Your task to perform on an android device: turn on translation in the chrome app Image 0: 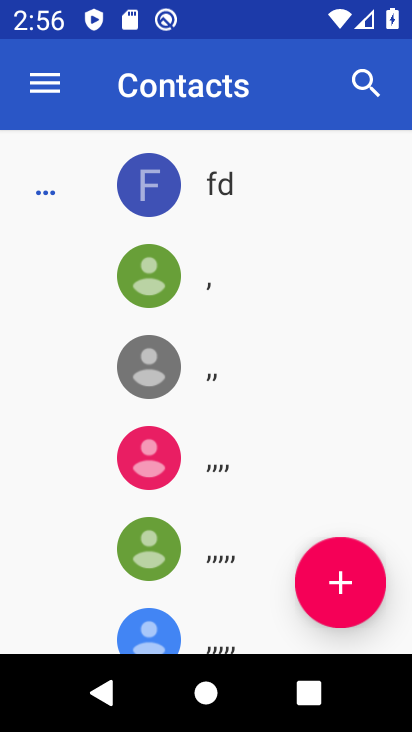
Step 0: press home button
Your task to perform on an android device: turn on translation in the chrome app Image 1: 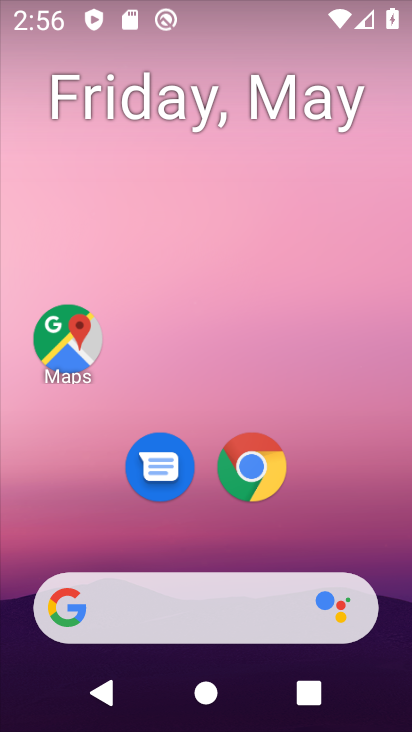
Step 1: drag from (331, 501) to (263, 101)
Your task to perform on an android device: turn on translation in the chrome app Image 2: 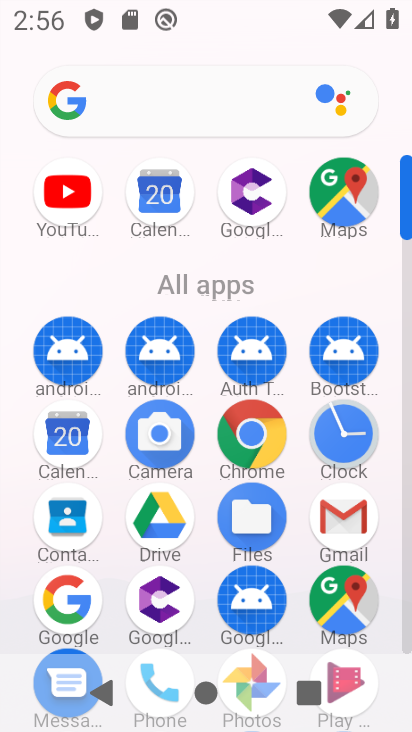
Step 2: click (268, 428)
Your task to perform on an android device: turn on translation in the chrome app Image 3: 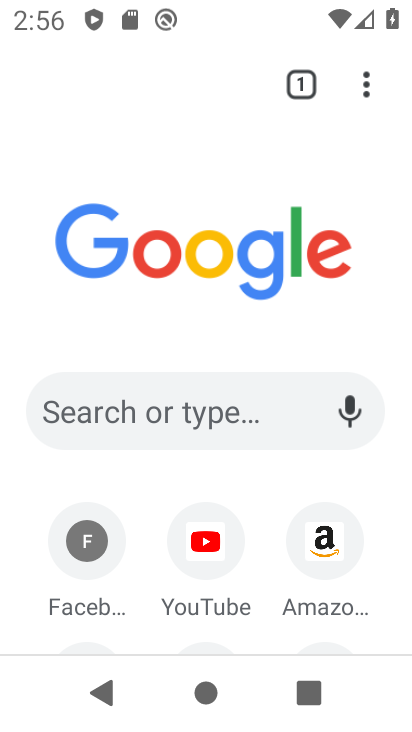
Step 3: drag from (373, 77) to (153, 514)
Your task to perform on an android device: turn on translation in the chrome app Image 4: 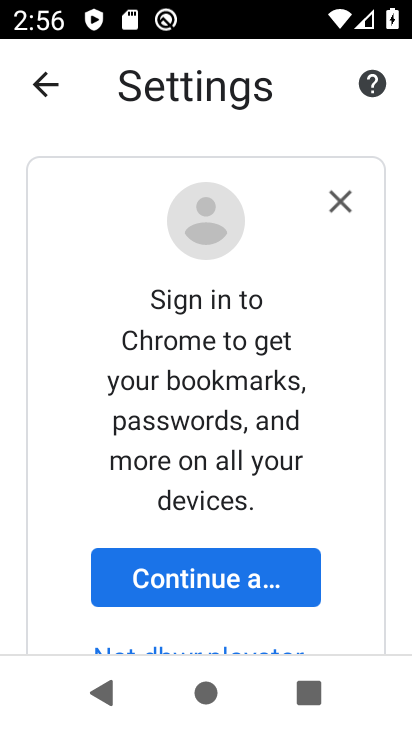
Step 4: drag from (357, 636) to (295, 237)
Your task to perform on an android device: turn on translation in the chrome app Image 5: 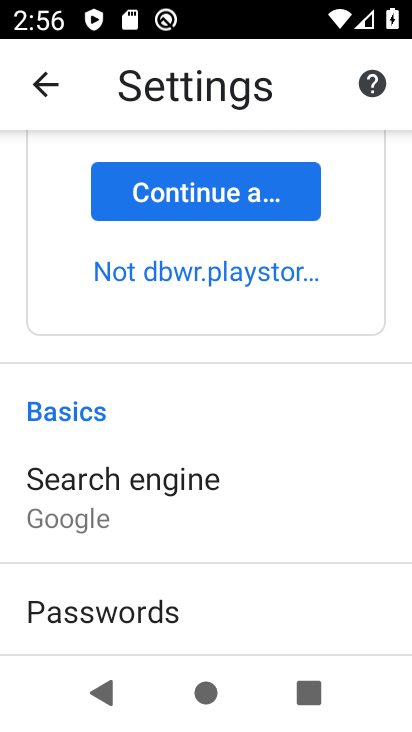
Step 5: drag from (228, 597) to (175, 229)
Your task to perform on an android device: turn on translation in the chrome app Image 6: 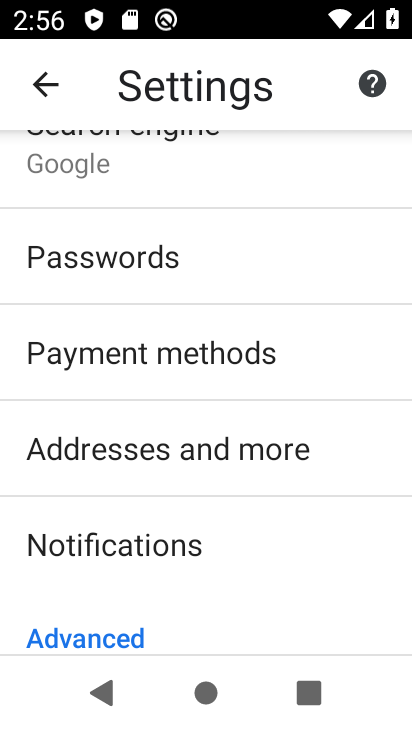
Step 6: drag from (206, 607) to (189, 146)
Your task to perform on an android device: turn on translation in the chrome app Image 7: 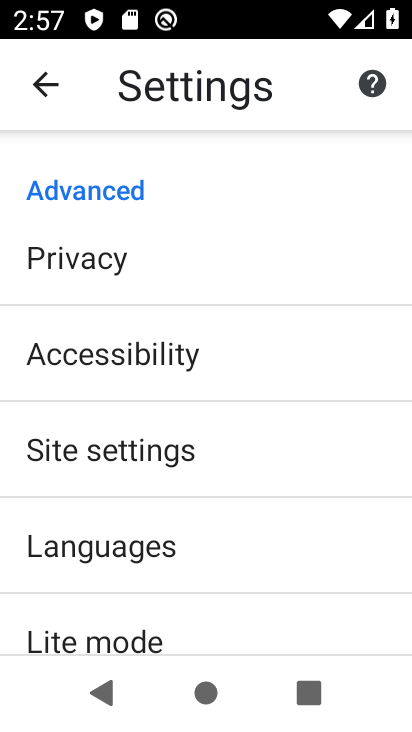
Step 7: click (162, 552)
Your task to perform on an android device: turn on translation in the chrome app Image 8: 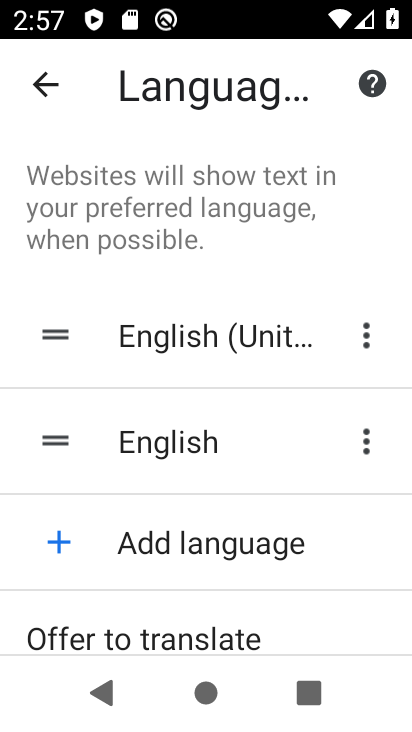
Step 8: task complete